Your task to perform on an android device: Open the Play Movies app and select the watchlist tab. Image 0: 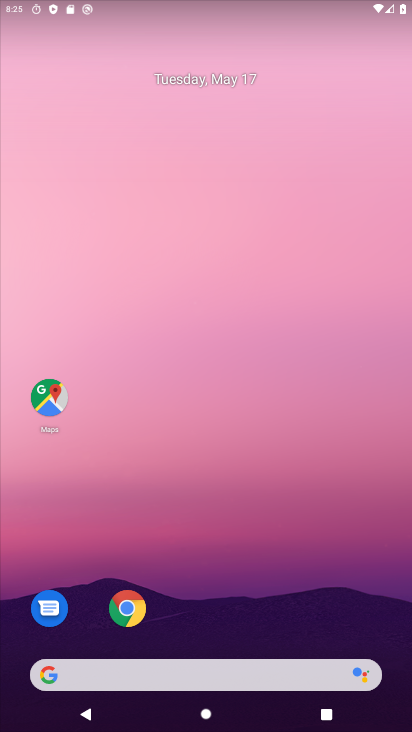
Step 0: drag from (323, 565) to (316, 126)
Your task to perform on an android device: Open the Play Movies app and select the watchlist tab. Image 1: 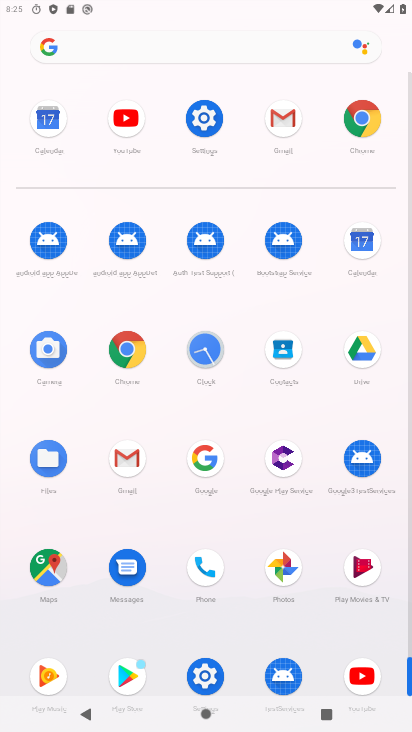
Step 1: click (372, 577)
Your task to perform on an android device: Open the Play Movies app and select the watchlist tab. Image 2: 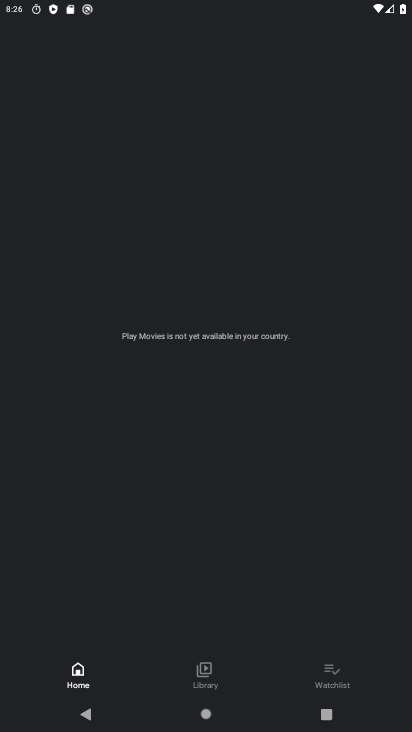
Step 2: click (322, 675)
Your task to perform on an android device: Open the Play Movies app and select the watchlist tab. Image 3: 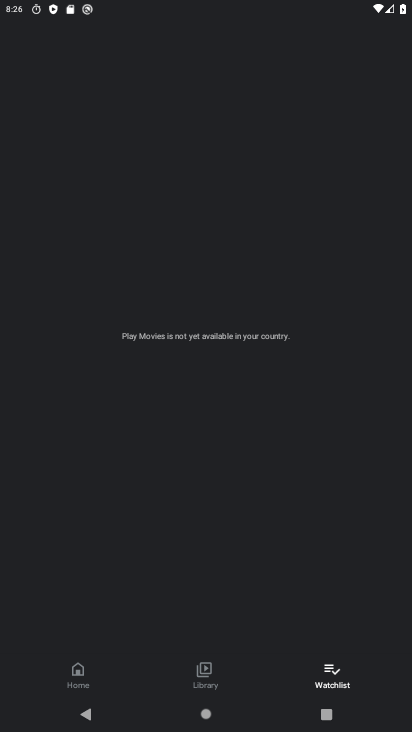
Step 3: task complete